Your task to perform on an android device: Open the phone app and click the voicemail tab. Image 0: 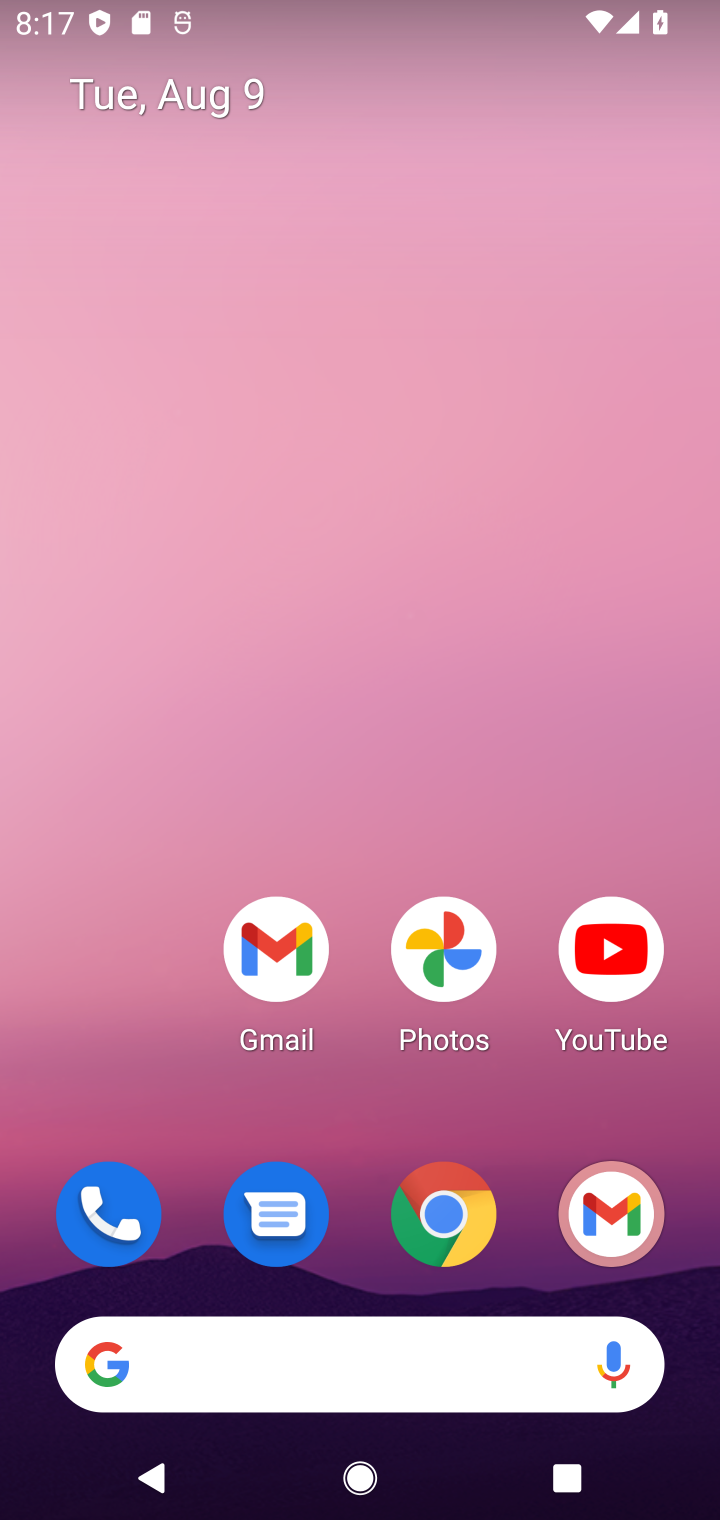
Step 0: click (101, 1246)
Your task to perform on an android device: Open the phone app and click the voicemail tab. Image 1: 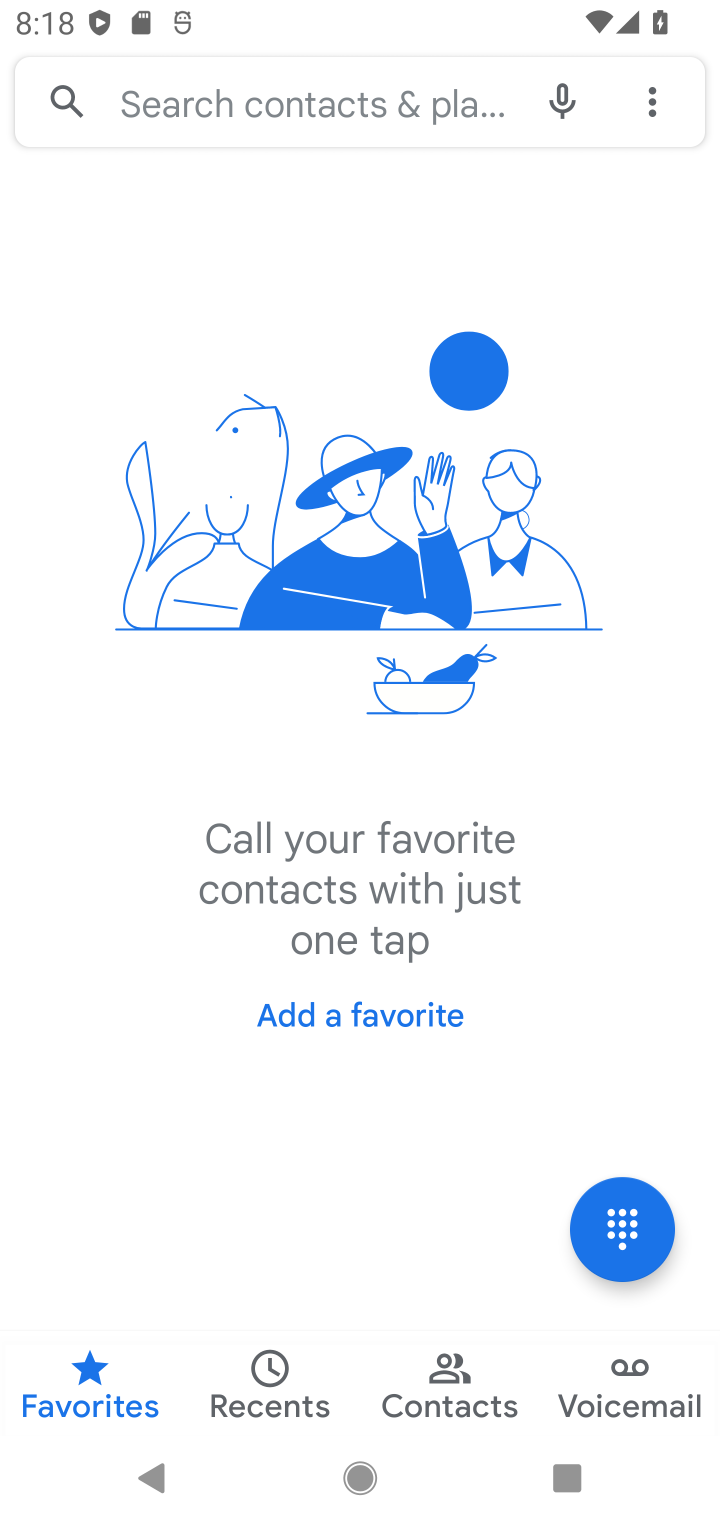
Step 1: click (634, 1392)
Your task to perform on an android device: Open the phone app and click the voicemail tab. Image 2: 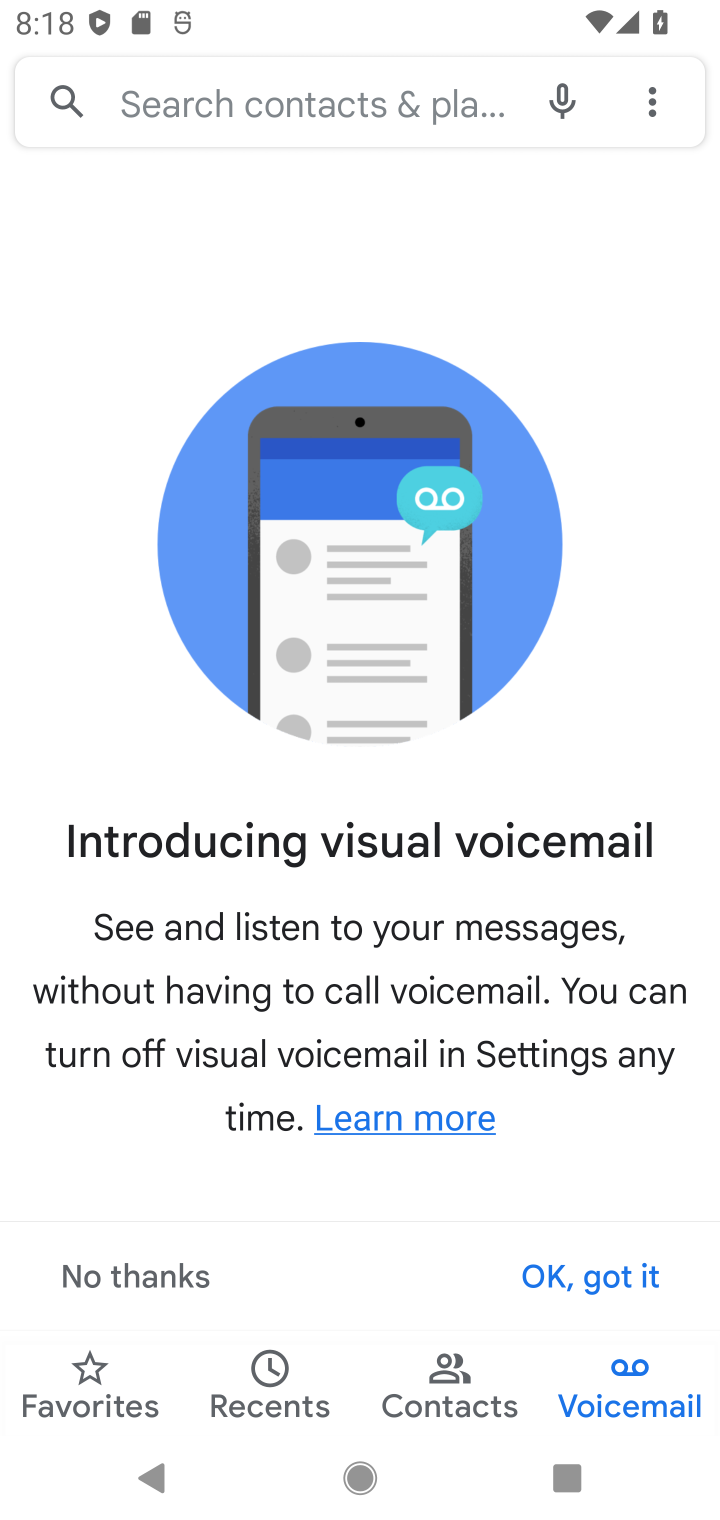
Step 2: task complete